Your task to perform on an android device: Go to accessibility settings Image 0: 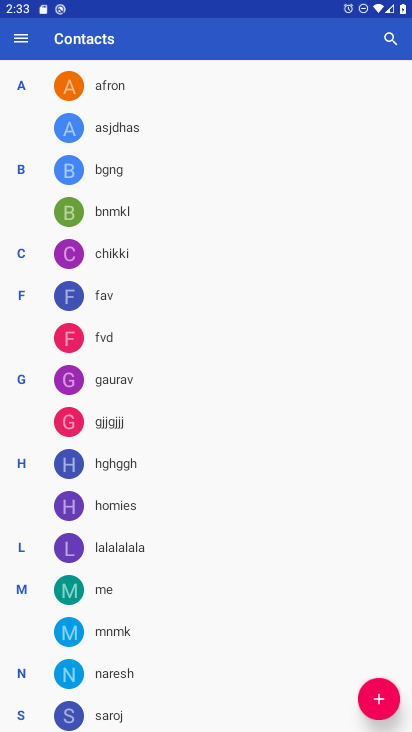
Step 0: press home button
Your task to perform on an android device: Go to accessibility settings Image 1: 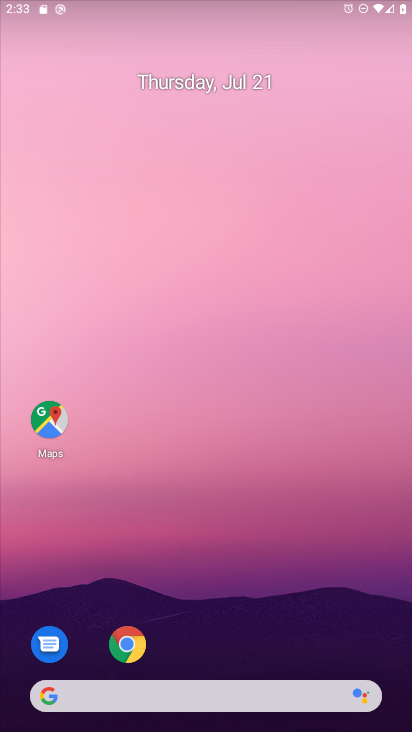
Step 1: drag from (153, 709) to (241, 315)
Your task to perform on an android device: Go to accessibility settings Image 2: 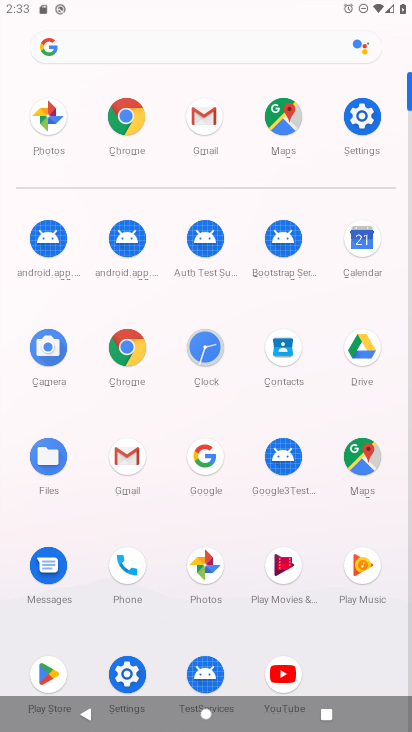
Step 2: click (366, 127)
Your task to perform on an android device: Go to accessibility settings Image 3: 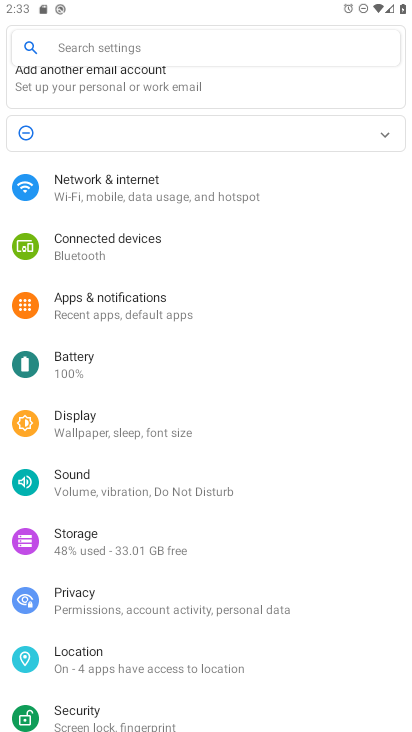
Step 3: drag from (100, 676) to (203, 281)
Your task to perform on an android device: Go to accessibility settings Image 4: 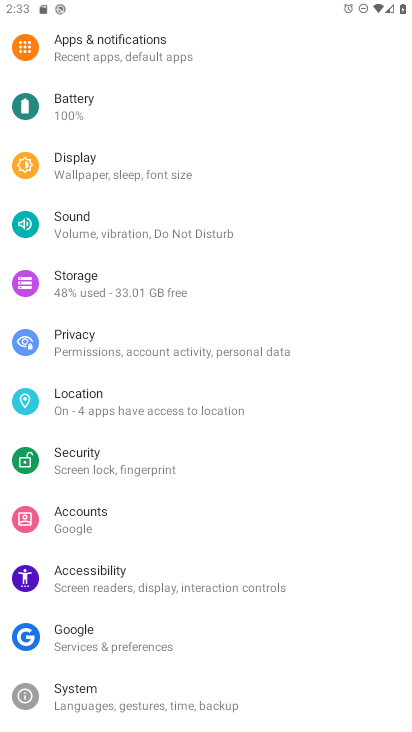
Step 4: click (110, 581)
Your task to perform on an android device: Go to accessibility settings Image 5: 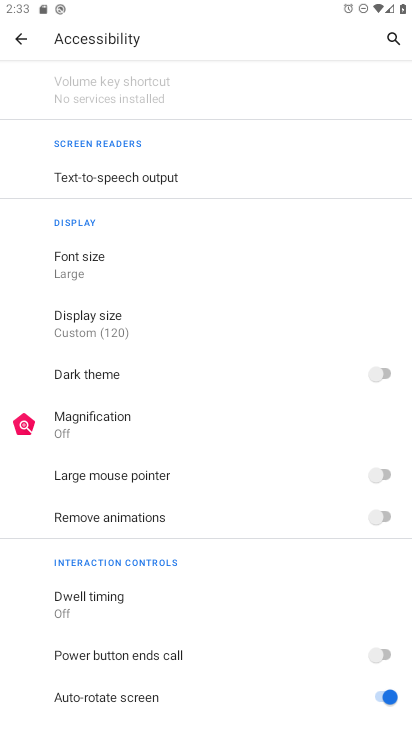
Step 5: task complete